Your task to perform on an android device: turn smart compose on in the gmail app Image 0: 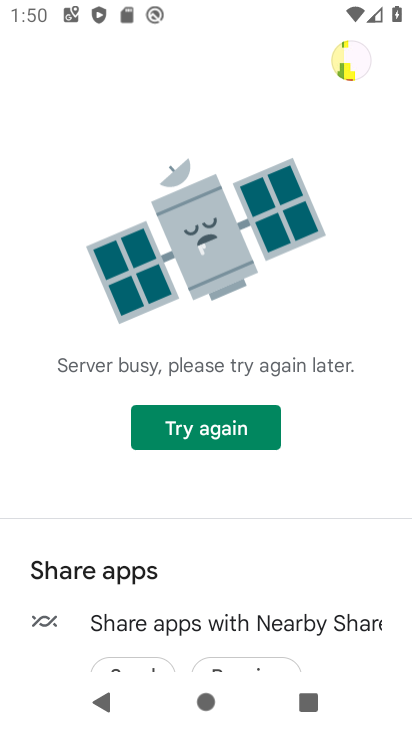
Step 0: press home button
Your task to perform on an android device: turn smart compose on in the gmail app Image 1: 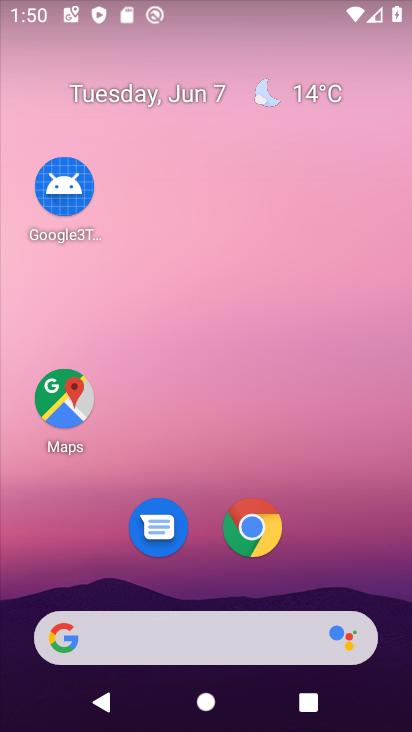
Step 1: drag from (293, 553) to (124, 17)
Your task to perform on an android device: turn smart compose on in the gmail app Image 2: 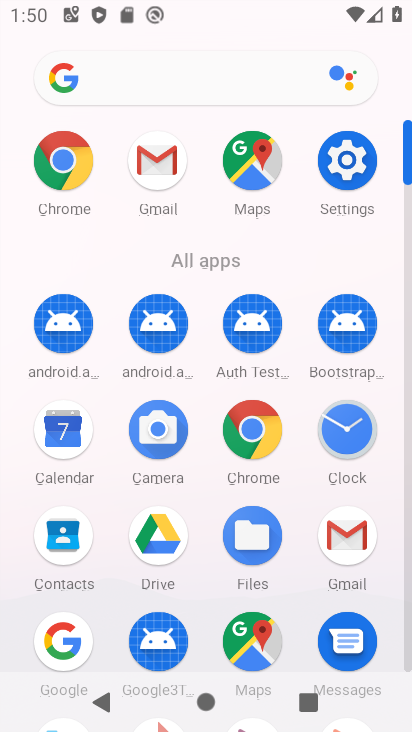
Step 2: click (141, 164)
Your task to perform on an android device: turn smart compose on in the gmail app Image 3: 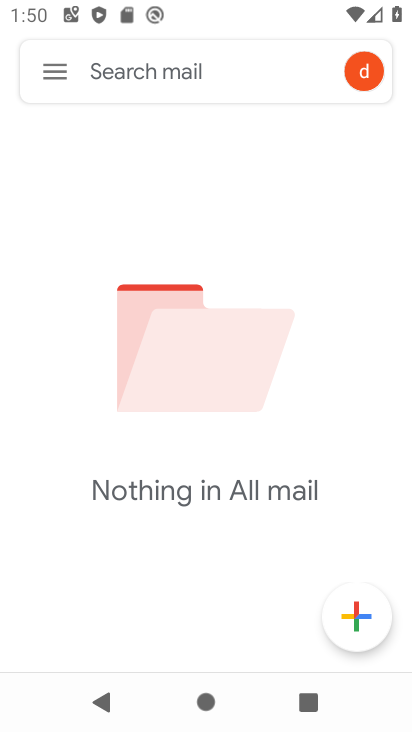
Step 3: click (38, 69)
Your task to perform on an android device: turn smart compose on in the gmail app Image 4: 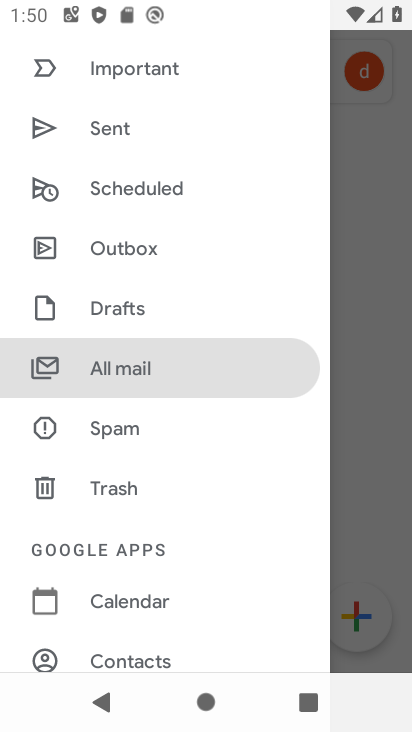
Step 4: drag from (143, 629) to (136, 327)
Your task to perform on an android device: turn smart compose on in the gmail app Image 5: 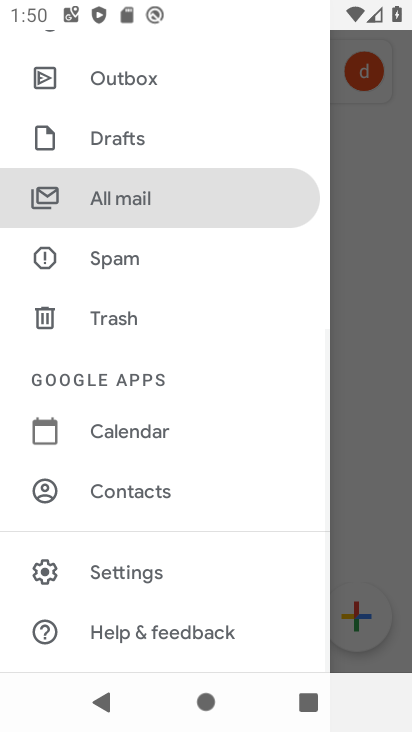
Step 5: click (142, 563)
Your task to perform on an android device: turn smart compose on in the gmail app Image 6: 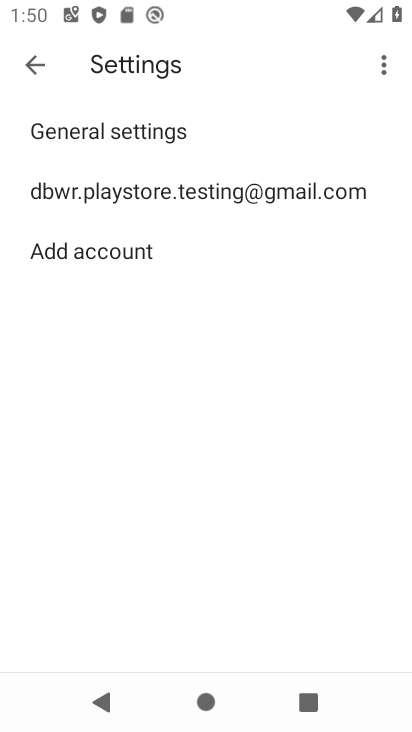
Step 6: click (205, 202)
Your task to perform on an android device: turn smart compose on in the gmail app Image 7: 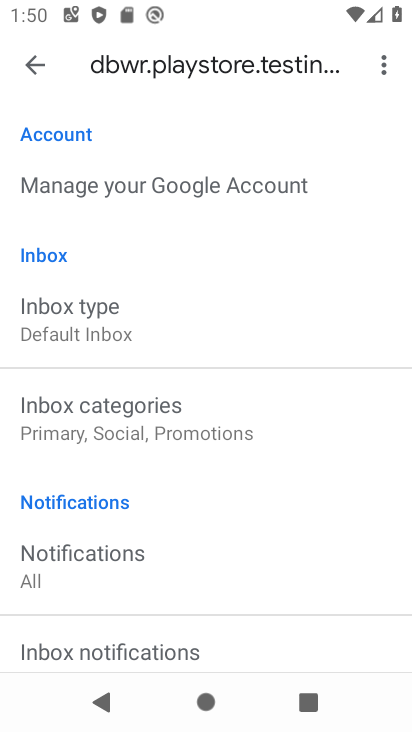
Step 7: task complete